Your task to perform on an android device: Open the phone app and click the voicemail tab. Image 0: 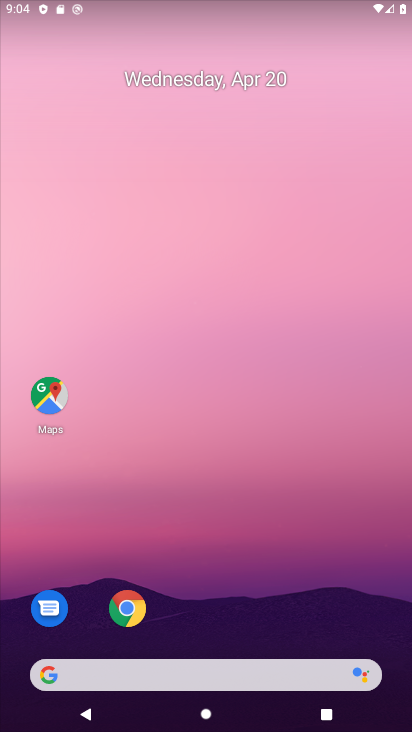
Step 0: drag from (211, 541) to (293, 22)
Your task to perform on an android device: Open the phone app and click the voicemail tab. Image 1: 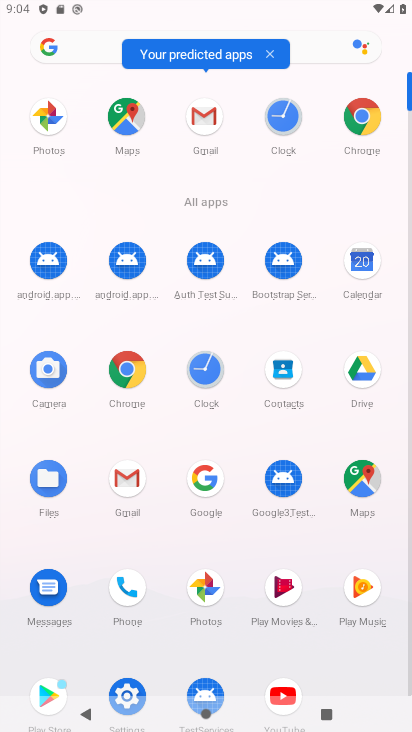
Step 1: click (131, 582)
Your task to perform on an android device: Open the phone app and click the voicemail tab. Image 2: 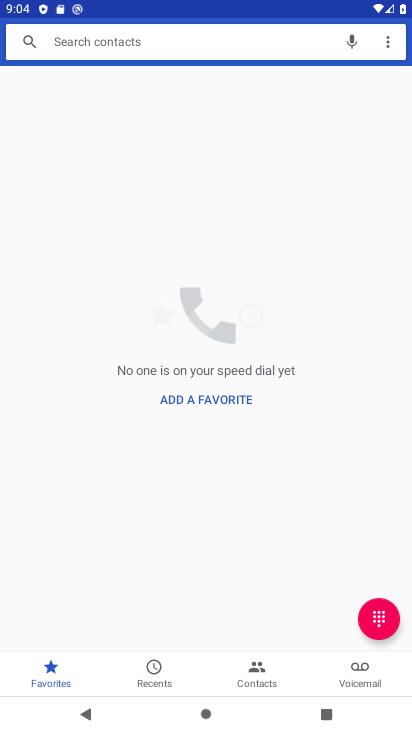
Step 2: click (369, 669)
Your task to perform on an android device: Open the phone app and click the voicemail tab. Image 3: 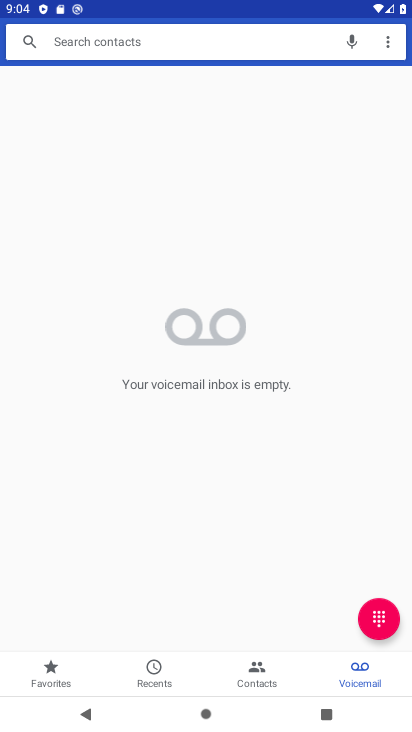
Step 3: task complete